Your task to perform on an android device: Go to privacy settings Image 0: 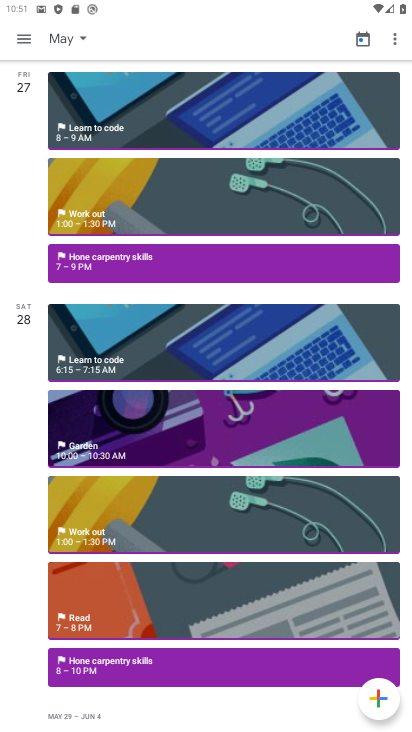
Step 0: press home button
Your task to perform on an android device: Go to privacy settings Image 1: 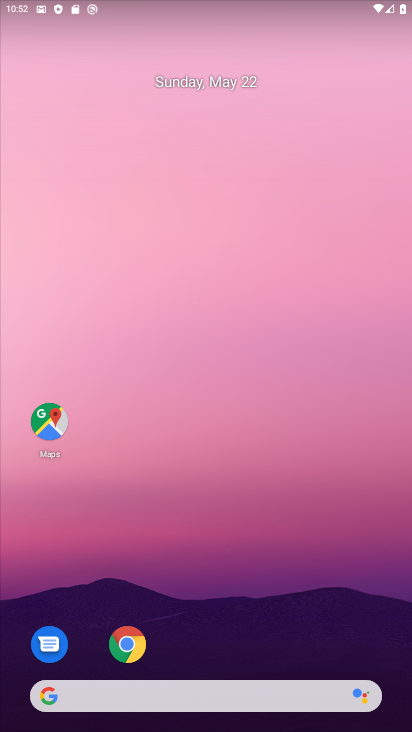
Step 1: drag from (210, 664) to (215, 228)
Your task to perform on an android device: Go to privacy settings Image 2: 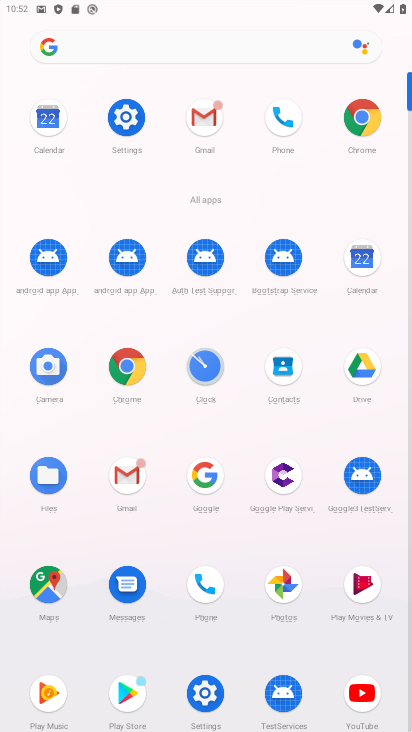
Step 2: click (124, 105)
Your task to perform on an android device: Go to privacy settings Image 3: 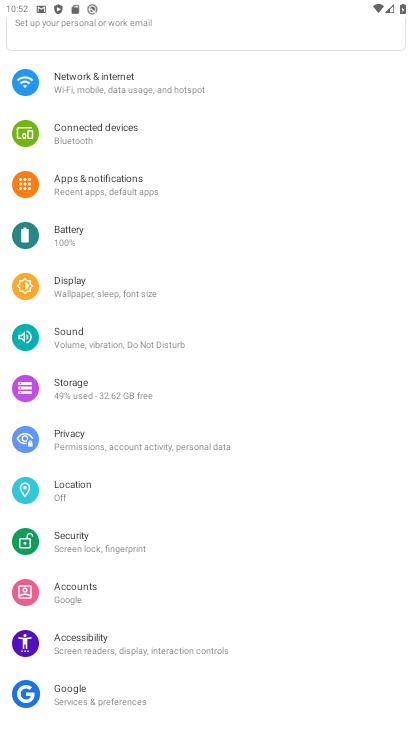
Step 3: click (91, 435)
Your task to perform on an android device: Go to privacy settings Image 4: 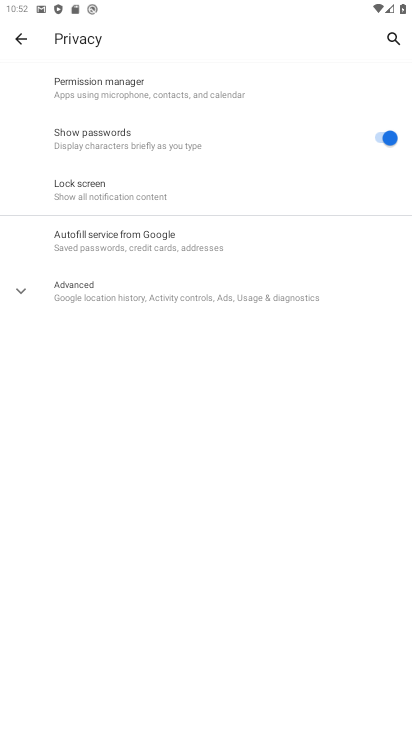
Step 4: click (26, 285)
Your task to perform on an android device: Go to privacy settings Image 5: 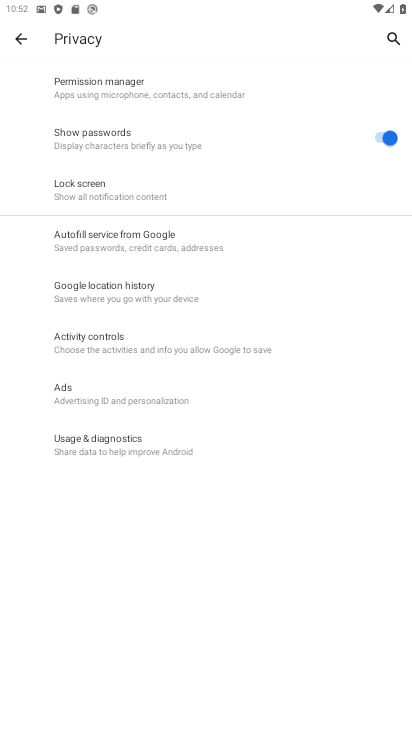
Step 5: task complete